Your task to perform on an android device: Open settings on Google Maps Image 0: 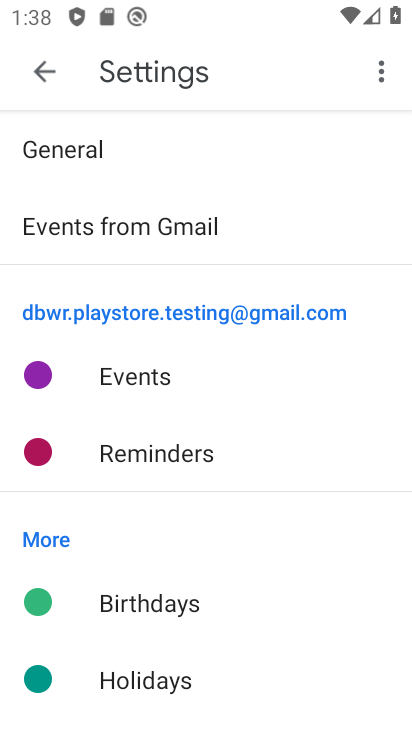
Step 0: press home button
Your task to perform on an android device: Open settings on Google Maps Image 1: 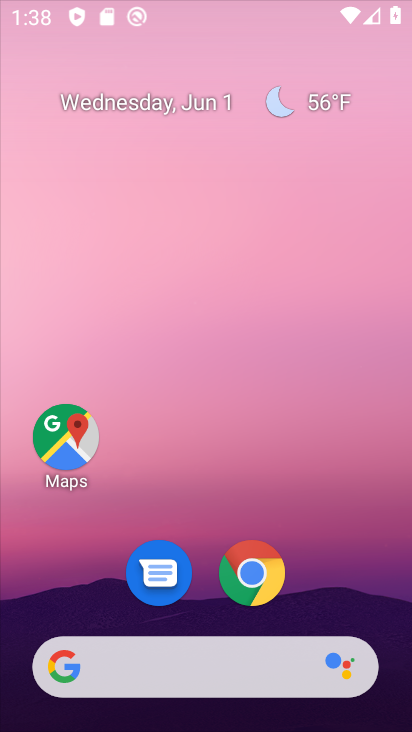
Step 1: drag from (222, 636) to (249, 256)
Your task to perform on an android device: Open settings on Google Maps Image 2: 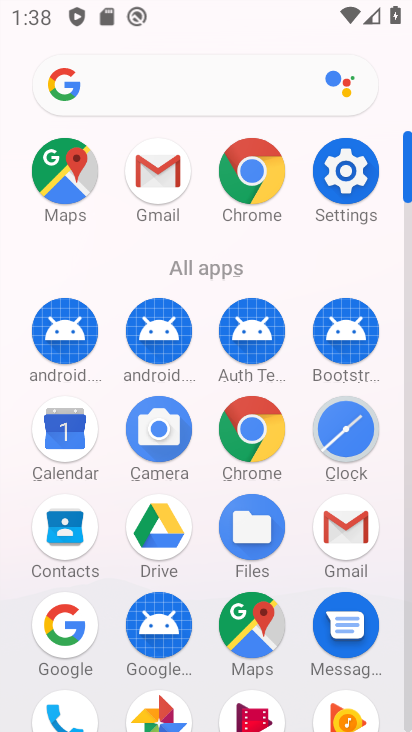
Step 2: click (253, 621)
Your task to perform on an android device: Open settings on Google Maps Image 3: 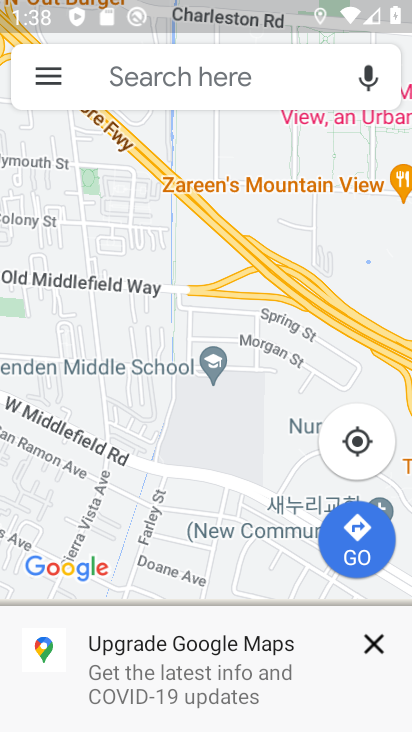
Step 3: drag from (216, 479) to (309, 204)
Your task to perform on an android device: Open settings on Google Maps Image 4: 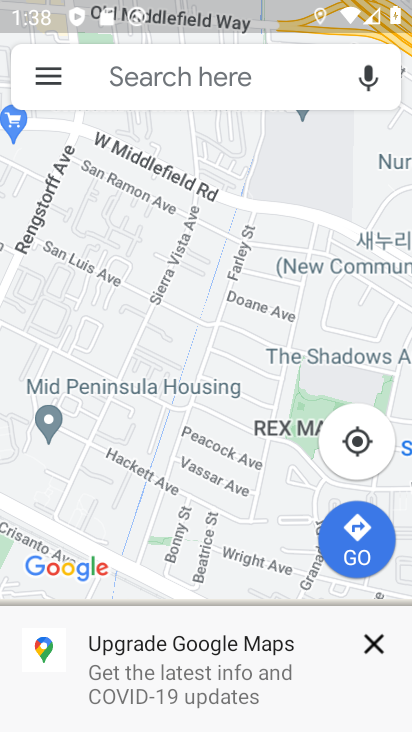
Step 4: click (52, 84)
Your task to perform on an android device: Open settings on Google Maps Image 5: 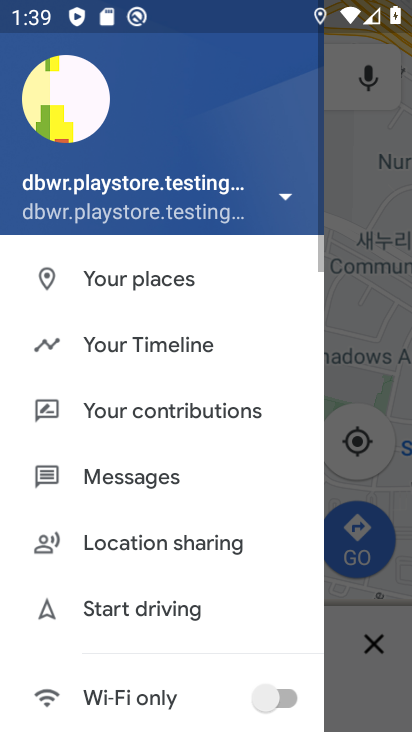
Step 5: drag from (137, 623) to (165, 74)
Your task to perform on an android device: Open settings on Google Maps Image 6: 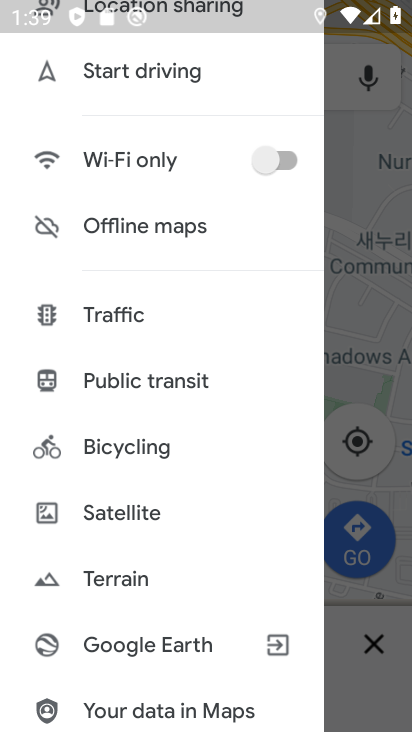
Step 6: drag from (115, 606) to (128, 246)
Your task to perform on an android device: Open settings on Google Maps Image 7: 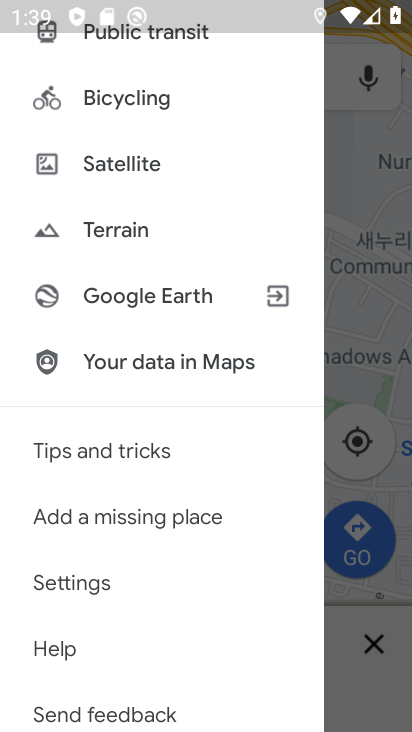
Step 7: click (82, 584)
Your task to perform on an android device: Open settings on Google Maps Image 8: 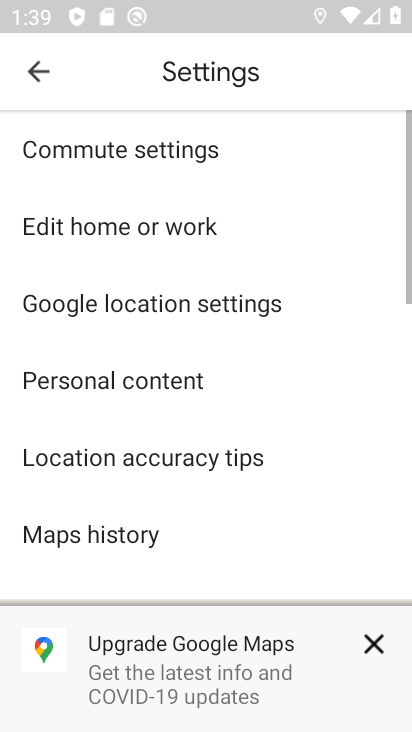
Step 8: task complete